Your task to perform on an android device: Open Youtube and go to the subscriptions tab Image 0: 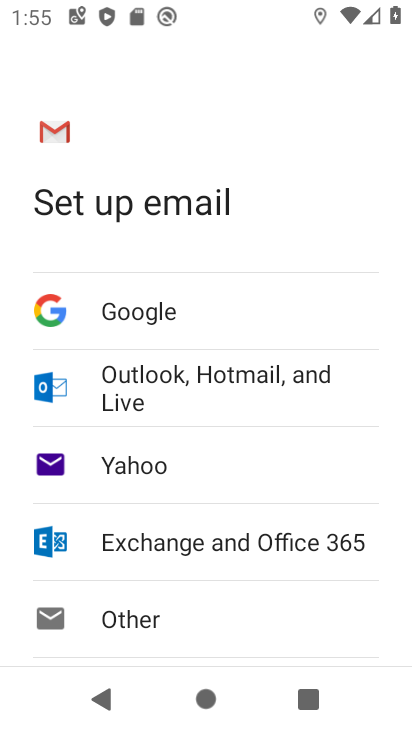
Step 0: press home button
Your task to perform on an android device: Open Youtube and go to the subscriptions tab Image 1: 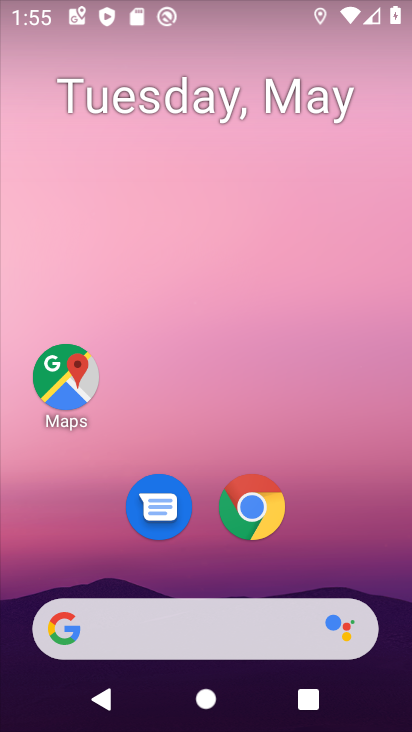
Step 1: drag from (195, 540) to (203, 58)
Your task to perform on an android device: Open Youtube and go to the subscriptions tab Image 2: 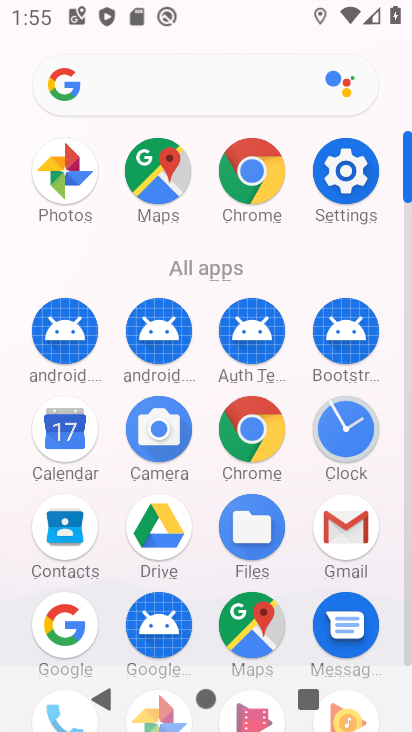
Step 2: drag from (195, 565) to (215, 397)
Your task to perform on an android device: Open Youtube and go to the subscriptions tab Image 3: 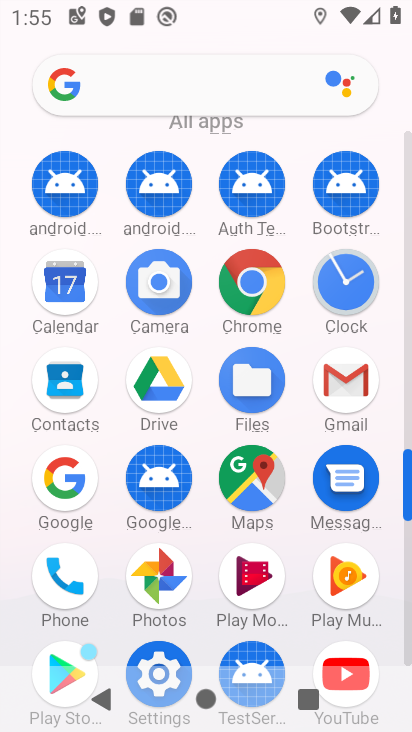
Step 3: click (345, 651)
Your task to perform on an android device: Open Youtube and go to the subscriptions tab Image 4: 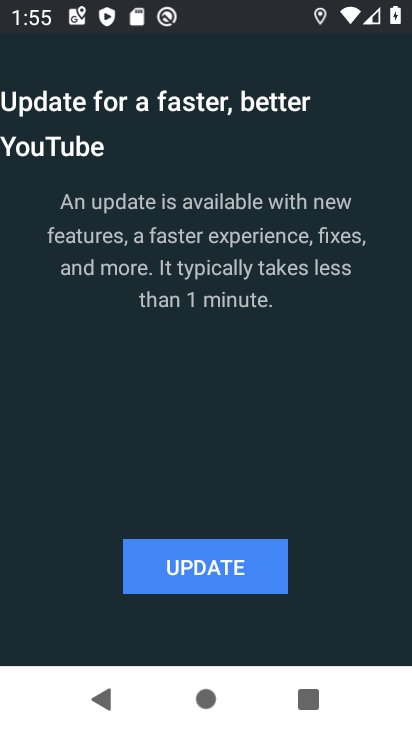
Step 4: click (219, 576)
Your task to perform on an android device: Open Youtube and go to the subscriptions tab Image 5: 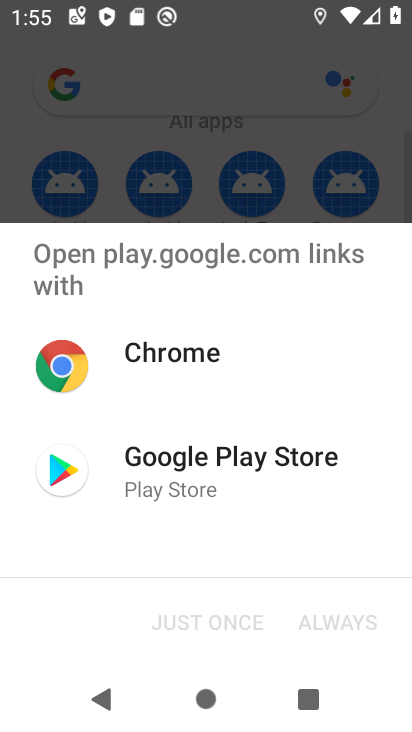
Step 5: click (193, 481)
Your task to perform on an android device: Open Youtube and go to the subscriptions tab Image 6: 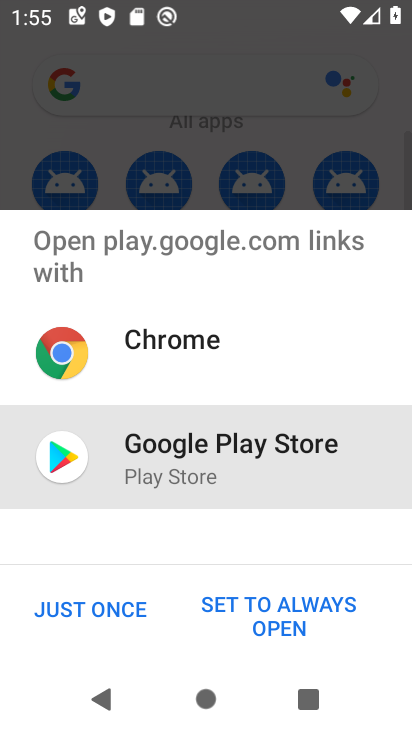
Step 6: click (43, 610)
Your task to perform on an android device: Open Youtube and go to the subscriptions tab Image 7: 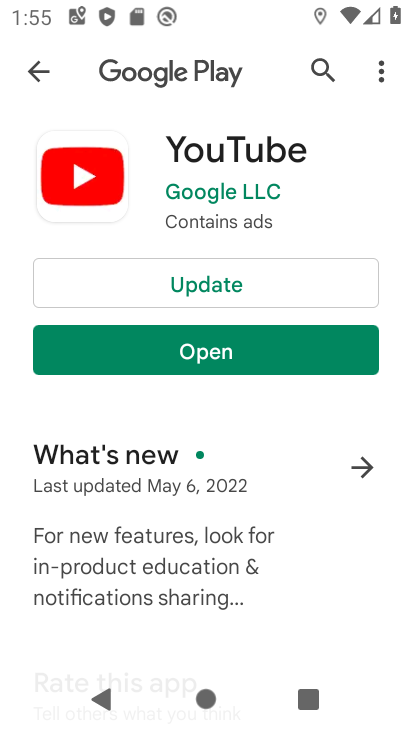
Step 7: click (247, 301)
Your task to perform on an android device: Open Youtube and go to the subscriptions tab Image 8: 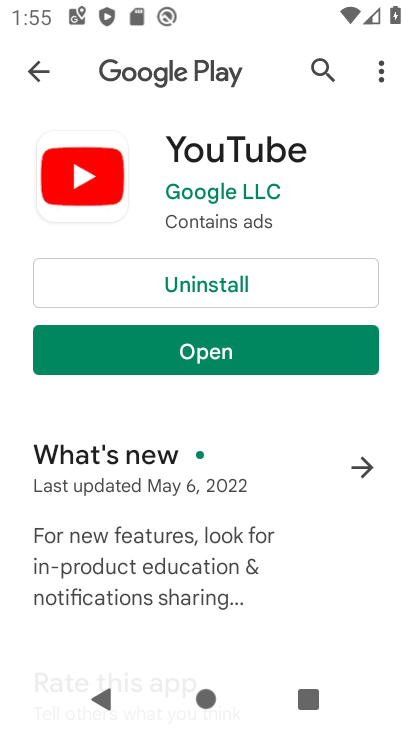
Step 8: click (130, 354)
Your task to perform on an android device: Open Youtube and go to the subscriptions tab Image 9: 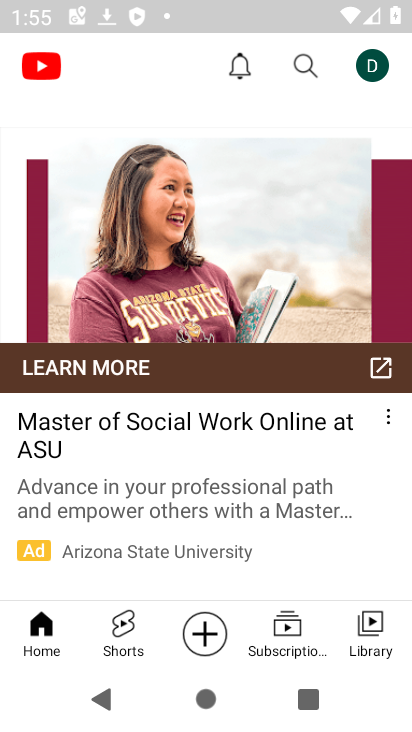
Step 9: click (305, 626)
Your task to perform on an android device: Open Youtube and go to the subscriptions tab Image 10: 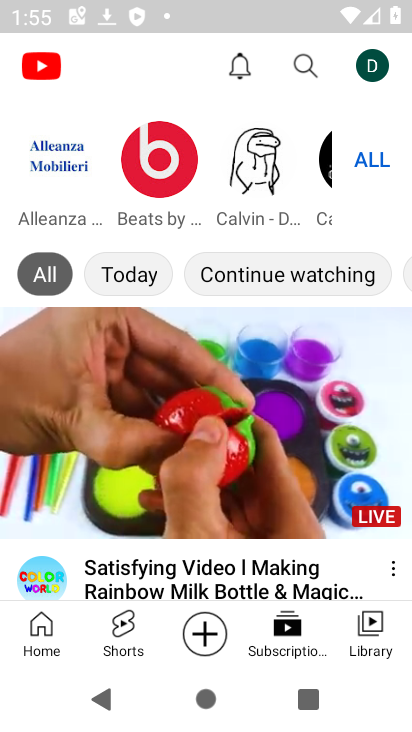
Step 10: task complete